Your task to perform on an android device: Open the stopwatch Image 0: 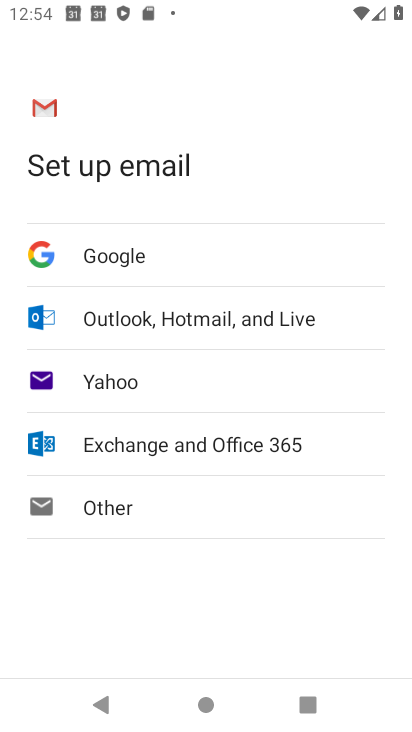
Step 0: press home button
Your task to perform on an android device: Open the stopwatch Image 1: 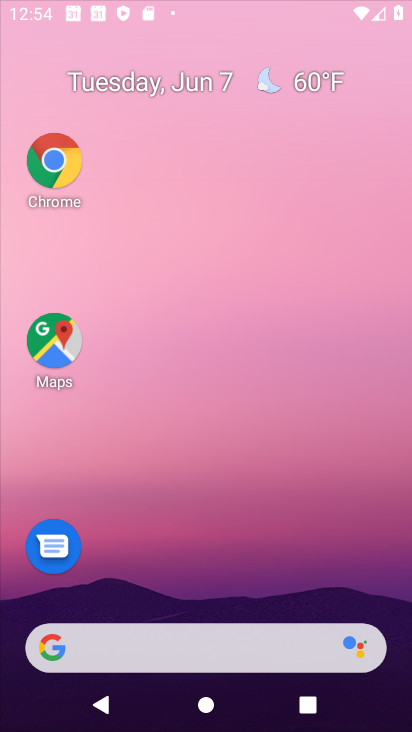
Step 1: drag from (206, 538) to (291, 39)
Your task to perform on an android device: Open the stopwatch Image 2: 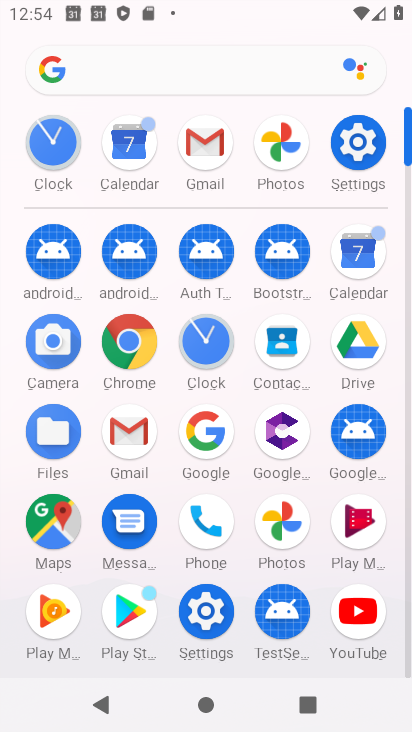
Step 2: click (190, 351)
Your task to perform on an android device: Open the stopwatch Image 3: 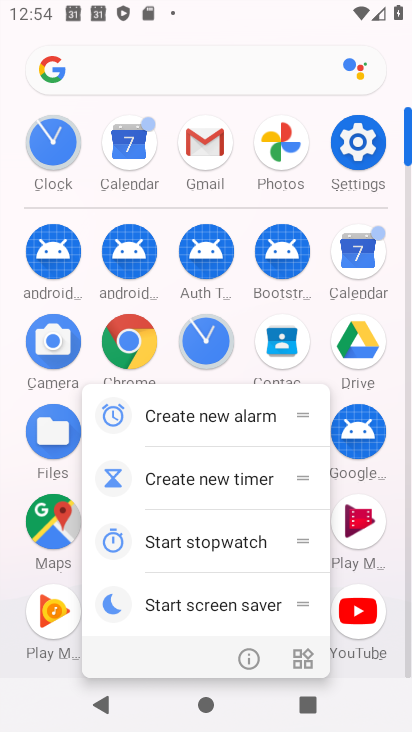
Step 3: click (237, 656)
Your task to perform on an android device: Open the stopwatch Image 4: 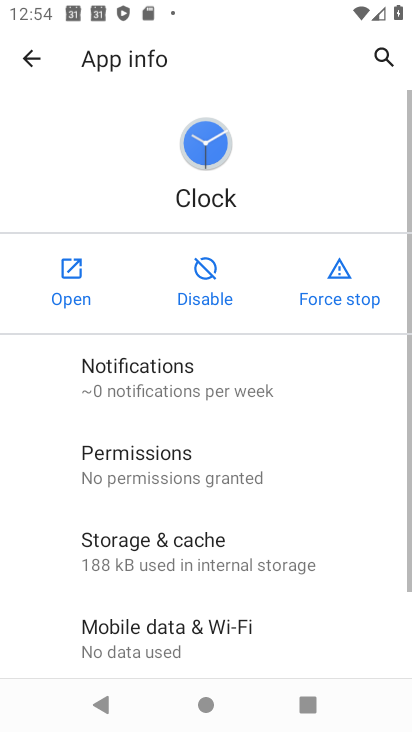
Step 4: click (83, 261)
Your task to perform on an android device: Open the stopwatch Image 5: 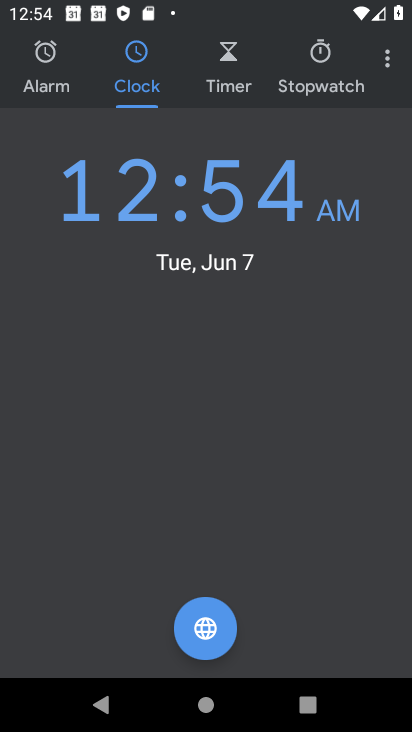
Step 5: click (322, 71)
Your task to perform on an android device: Open the stopwatch Image 6: 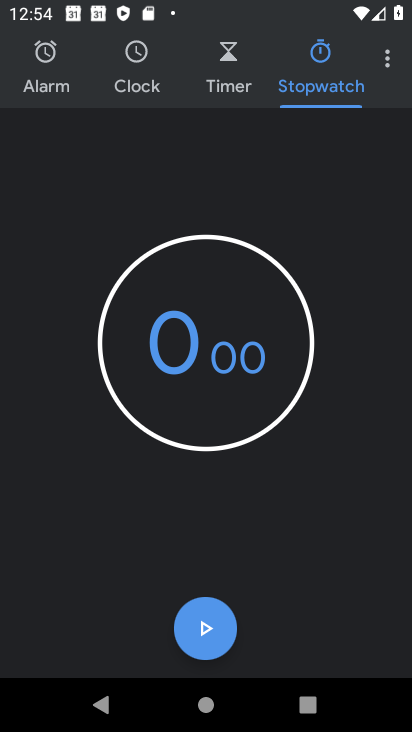
Step 6: click (220, 635)
Your task to perform on an android device: Open the stopwatch Image 7: 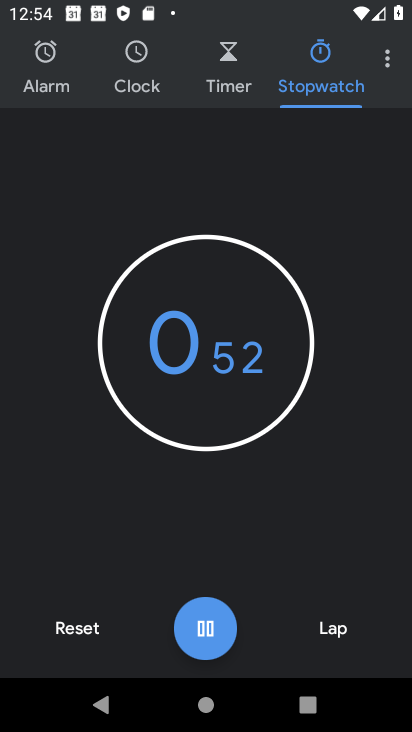
Step 7: task complete